Your task to perform on an android device: turn off notifications settings in the gmail app Image 0: 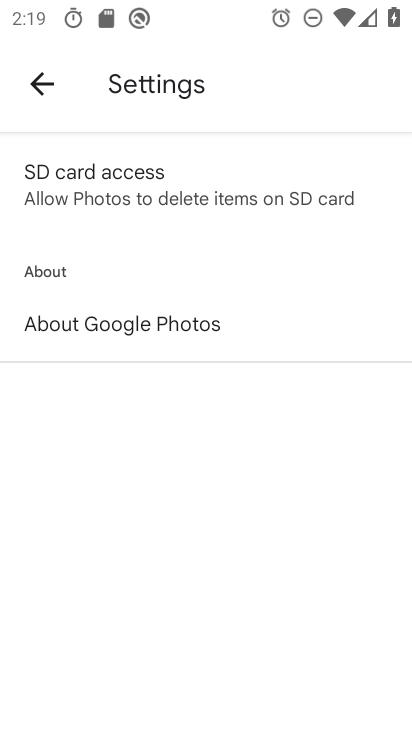
Step 0: press home button
Your task to perform on an android device: turn off notifications settings in the gmail app Image 1: 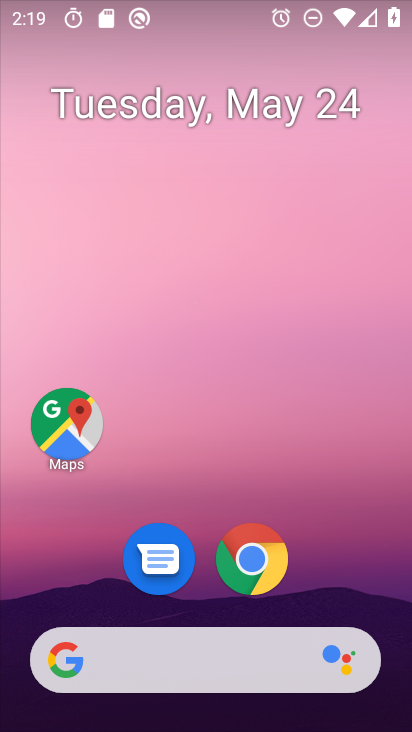
Step 1: drag from (393, 718) to (336, 317)
Your task to perform on an android device: turn off notifications settings in the gmail app Image 2: 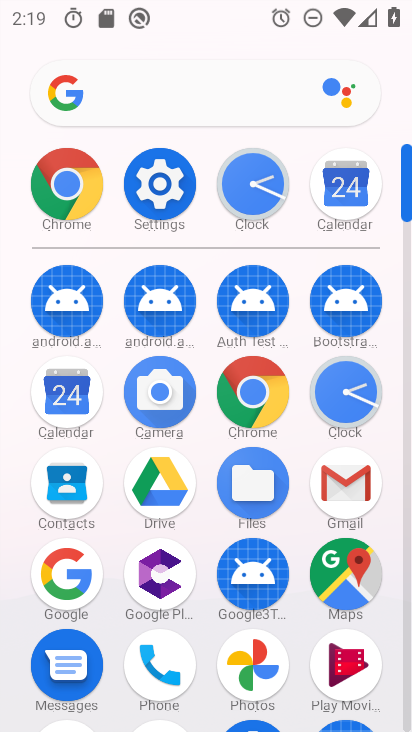
Step 2: click (350, 487)
Your task to perform on an android device: turn off notifications settings in the gmail app Image 3: 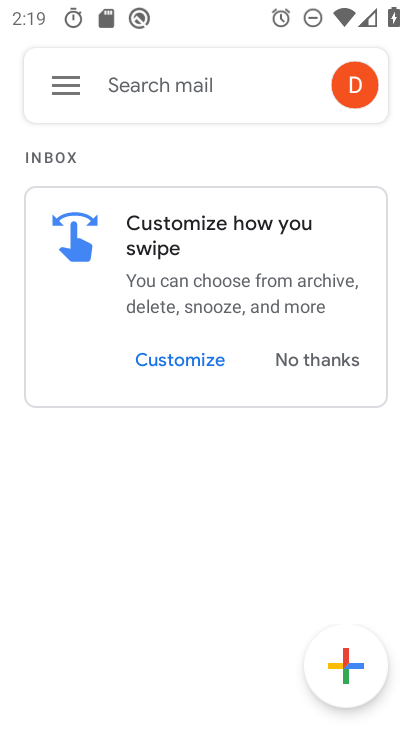
Step 3: click (59, 79)
Your task to perform on an android device: turn off notifications settings in the gmail app Image 4: 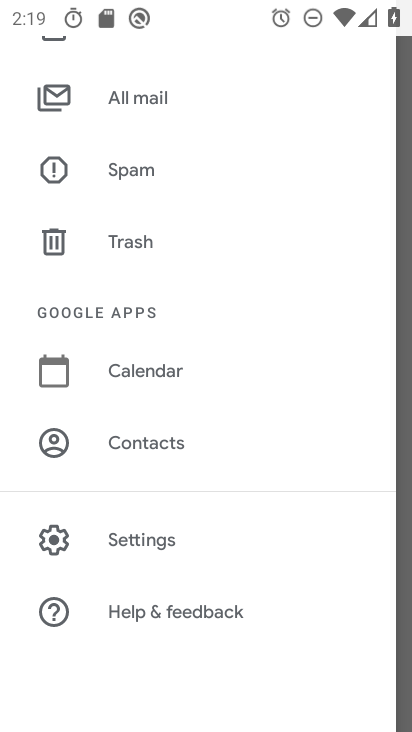
Step 4: click (127, 544)
Your task to perform on an android device: turn off notifications settings in the gmail app Image 5: 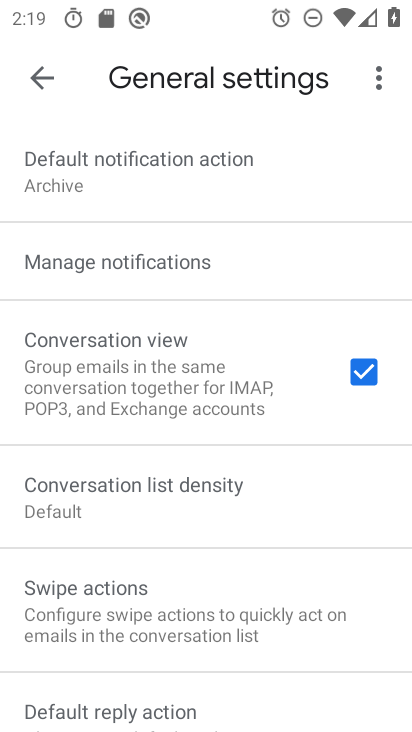
Step 5: click (117, 261)
Your task to perform on an android device: turn off notifications settings in the gmail app Image 6: 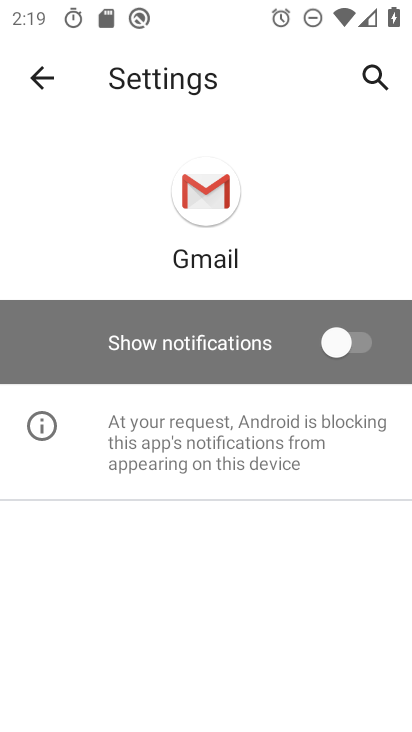
Step 6: task complete